Your task to perform on an android device: turn on wifi Image 0: 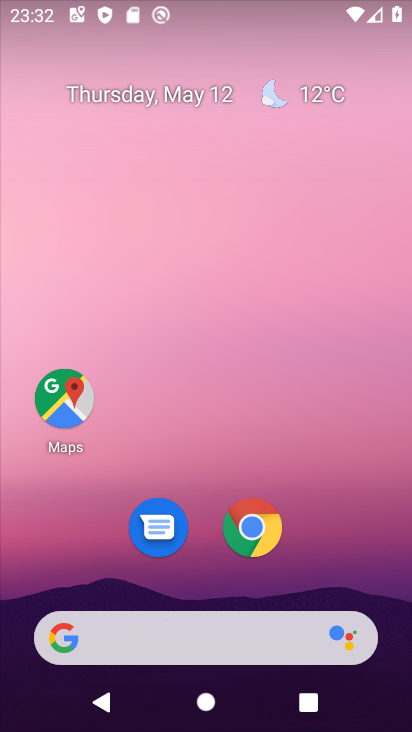
Step 0: drag from (299, 0) to (159, 555)
Your task to perform on an android device: turn on wifi Image 1: 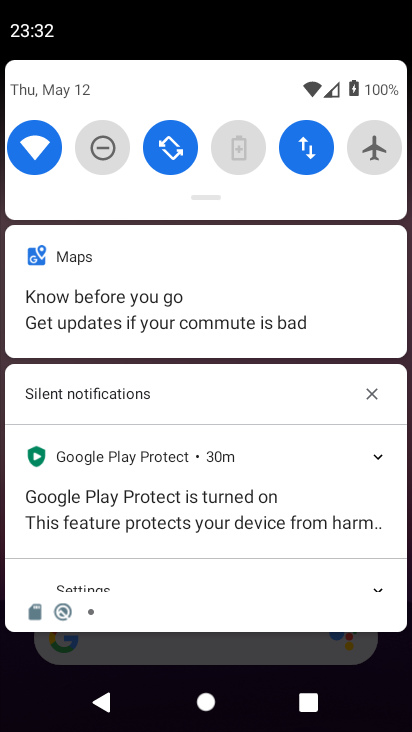
Step 1: click (21, 141)
Your task to perform on an android device: turn on wifi Image 2: 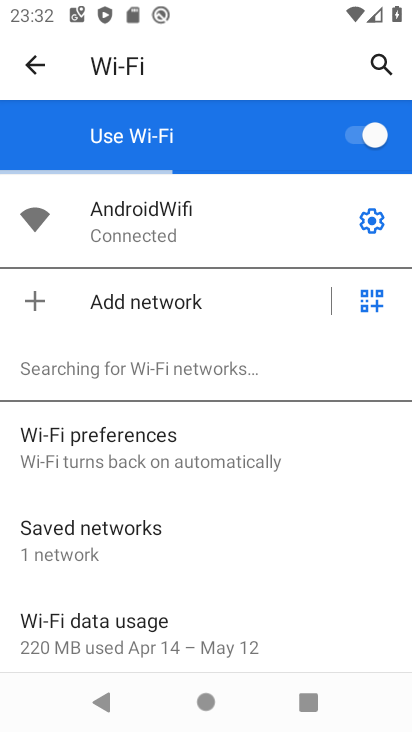
Step 2: task complete